Your task to perform on an android device: turn off picture-in-picture Image 0: 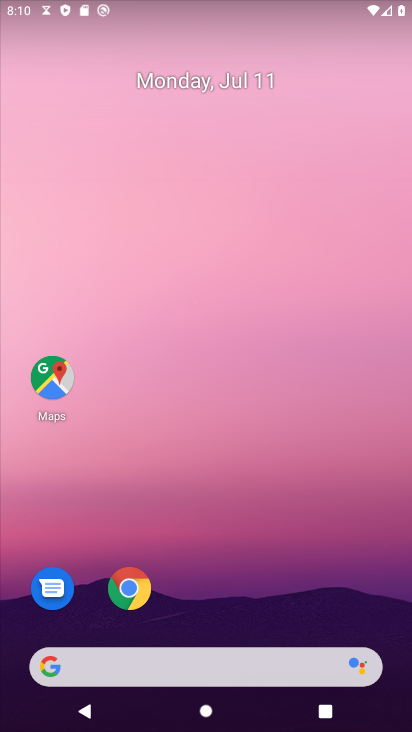
Step 0: press home button
Your task to perform on an android device: turn off picture-in-picture Image 1: 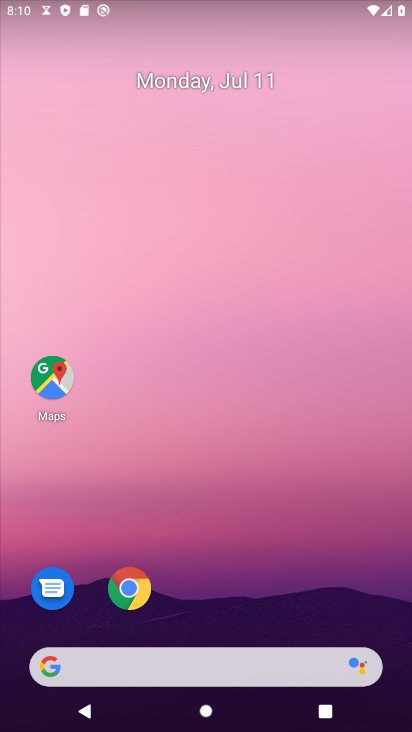
Step 1: click (125, 594)
Your task to perform on an android device: turn off picture-in-picture Image 2: 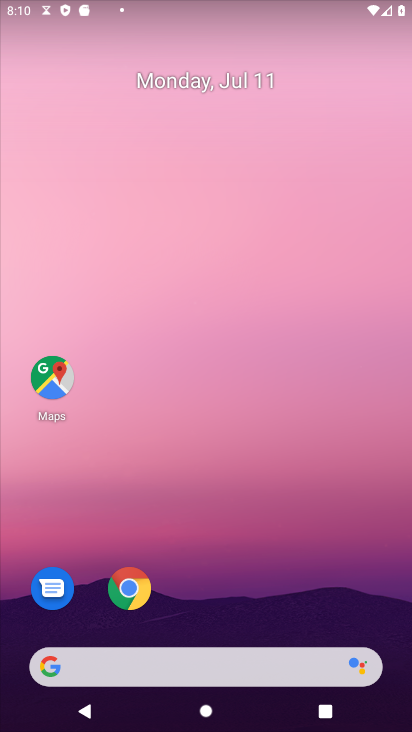
Step 2: click (131, 595)
Your task to perform on an android device: turn off picture-in-picture Image 3: 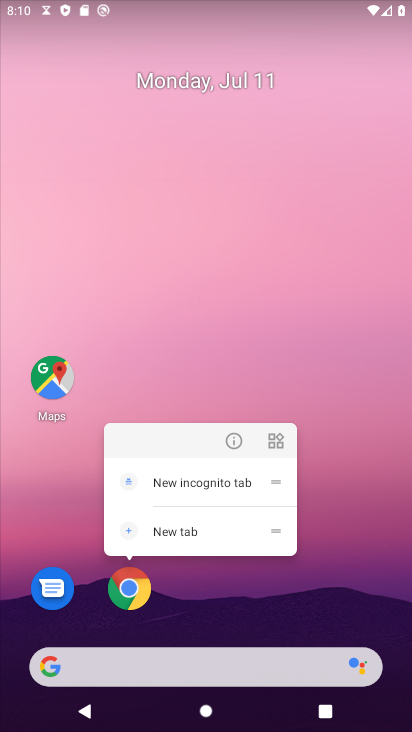
Step 3: click (238, 444)
Your task to perform on an android device: turn off picture-in-picture Image 4: 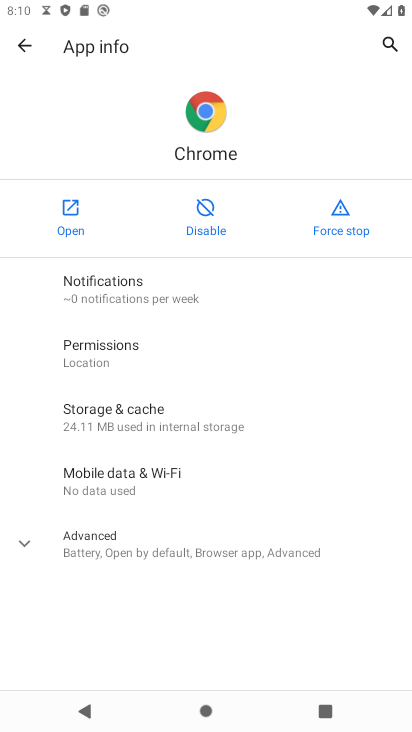
Step 4: click (123, 541)
Your task to perform on an android device: turn off picture-in-picture Image 5: 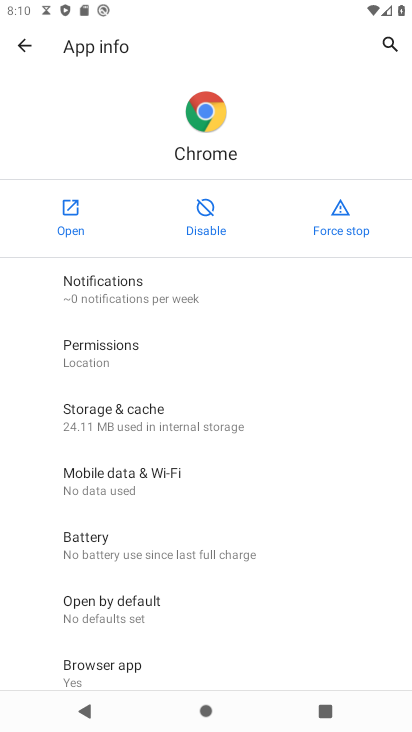
Step 5: drag from (226, 637) to (205, 304)
Your task to perform on an android device: turn off picture-in-picture Image 6: 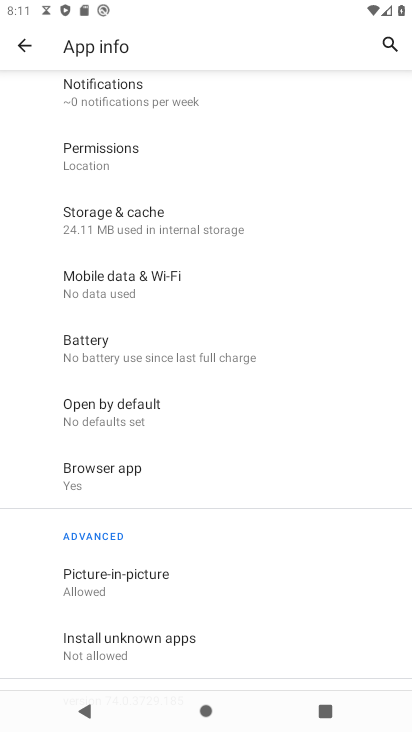
Step 6: click (99, 587)
Your task to perform on an android device: turn off picture-in-picture Image 7: 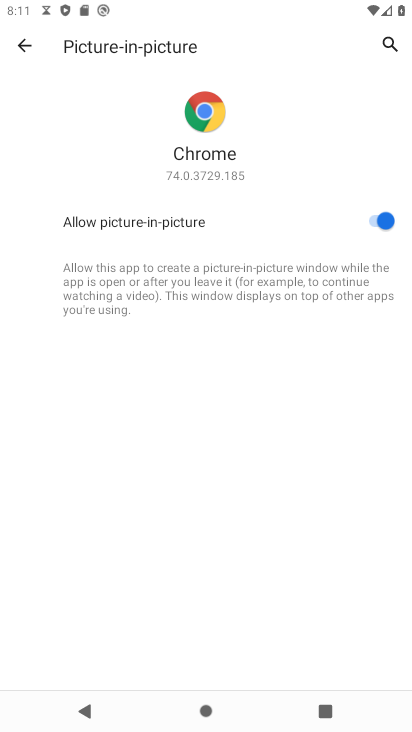
Step 7: click (374, 226)
Your task to perform on an android device: turn off picture-in-picture Image 8: 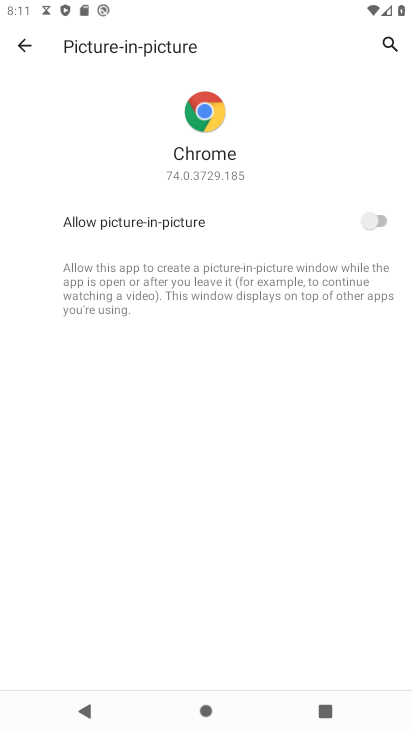
Step 8: task complete